Your task to perform on an android device: Go to accessibility settings Image 0: 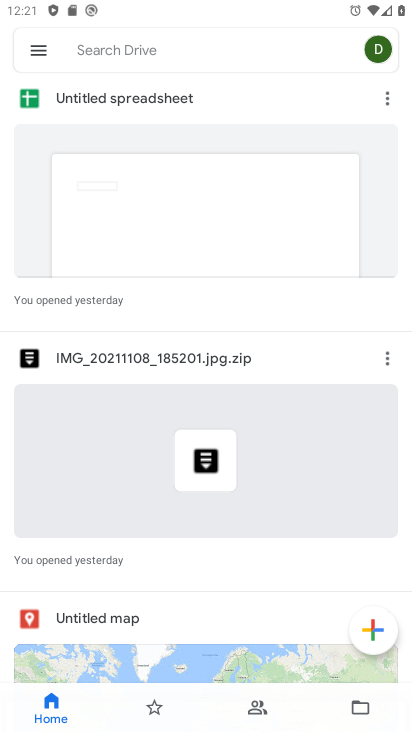
Step 0: press home button
Your task to perform on an android device: Go to accessibility settings Image 1: 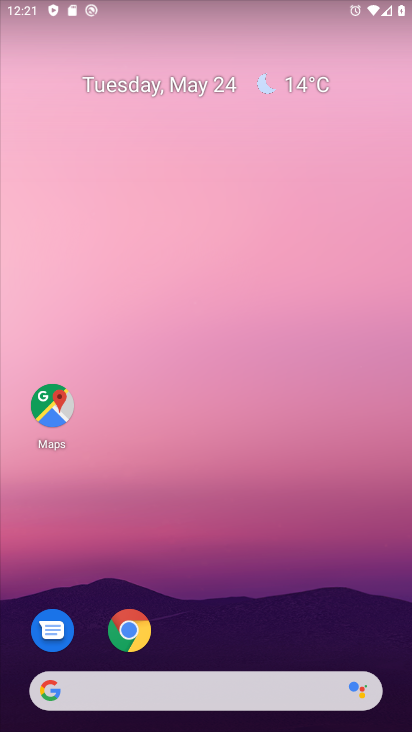
Step 1: drag from (312, 571) to (293, 6)
Your task to perform on an android device: Go to accessibility settings Image 2: 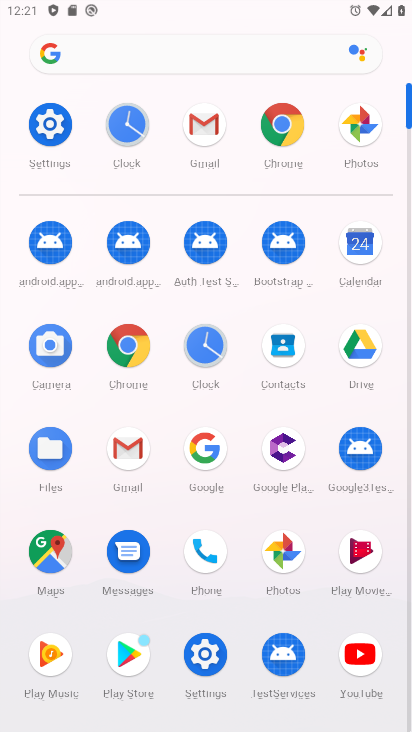
Step 2: click (37, 132)
Your task to perform on an android device: Go to accessibility settings Image 3: 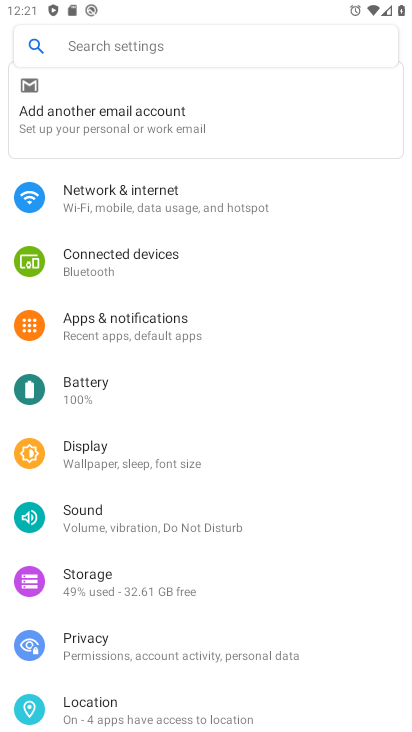
Step 3: drag from (263, 579) to (297, 237)
Your task to perform on an android device: Go to accessibility settings Image 4: 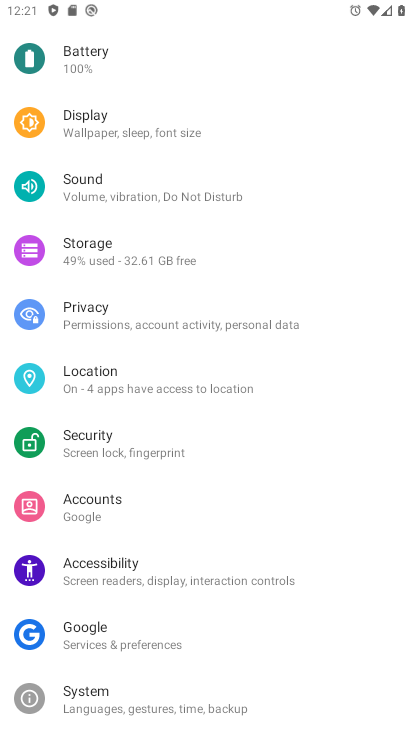
Step 4: click (210, 565)
Your task to perform on an android device: Go to accessibility settings Image 5: 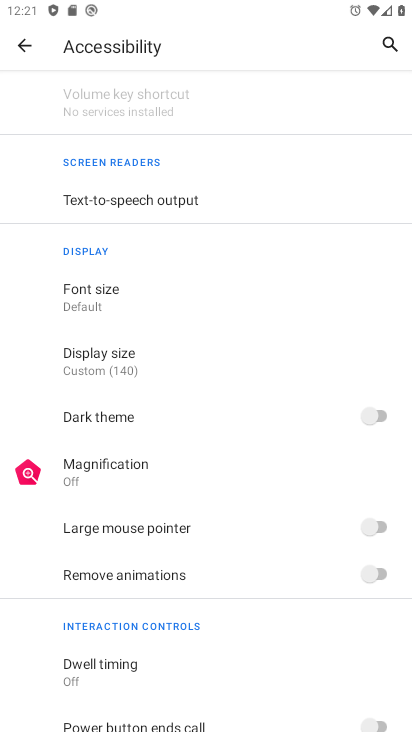
Step 5: task complete